Your task to perform on an android device: Open calendar and show me the fourth week of next month Image 0: 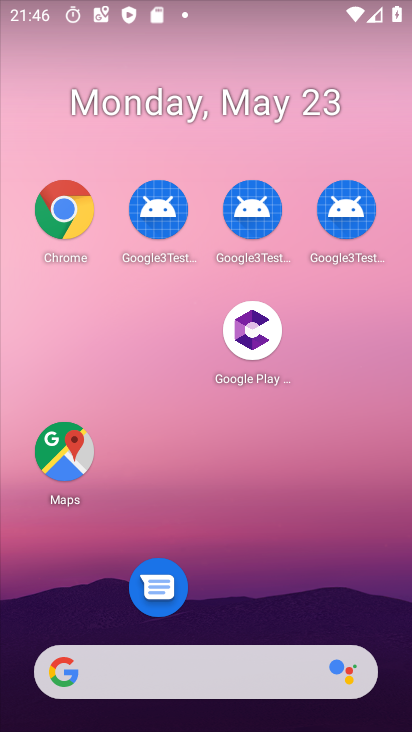
Step 0: drag from (288, 607) to (345, 7)
Your task to perform on an android device: Open calendar and show me the fourth week of next month Image 1: 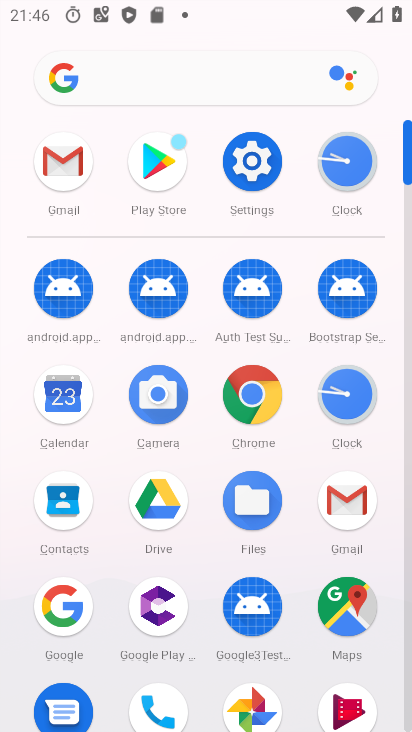
Step 1: click (64, 405)
Your task to perform on an android device: Open calendar and show me the fourth week of next month Image 2: 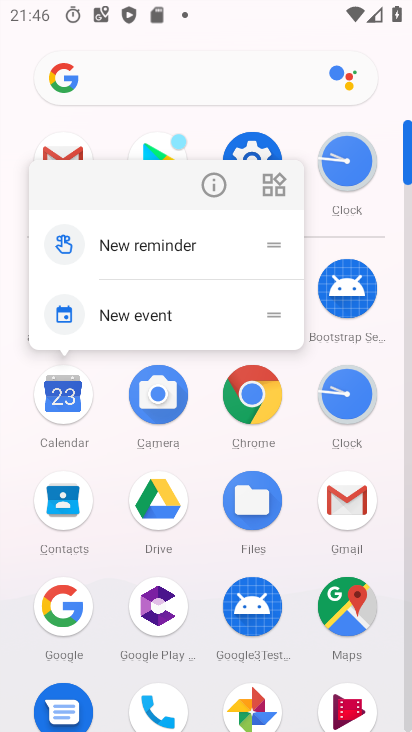
Step 2: click (64, 405)
Your task to perform on an android device: Open calendar and show me the fourth week of next month Image 3: 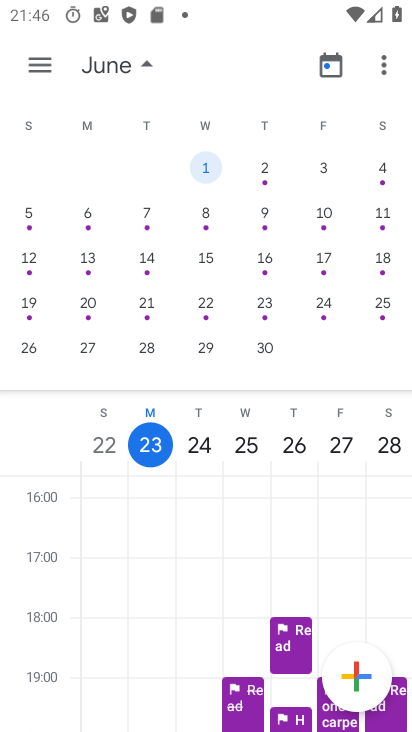
Step 3: click (324, 305)
Your task to perform on an android device: Open calendar and show me the fourth week of next month Image 4: 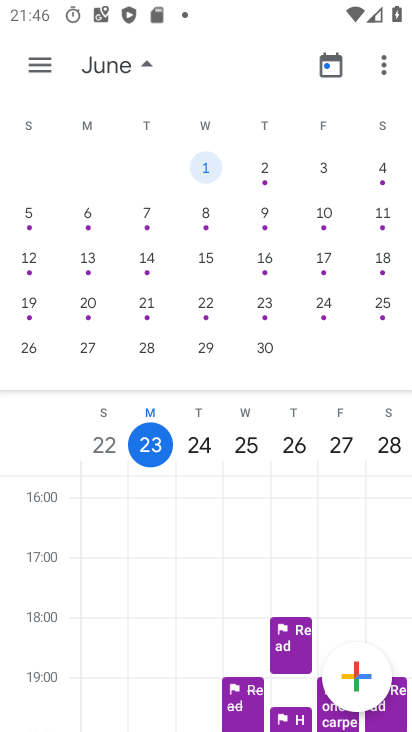
Step 4: click (324, 303)
Your task to perform on an android device: Open calendar and show me the fourth week of next month Image 5: 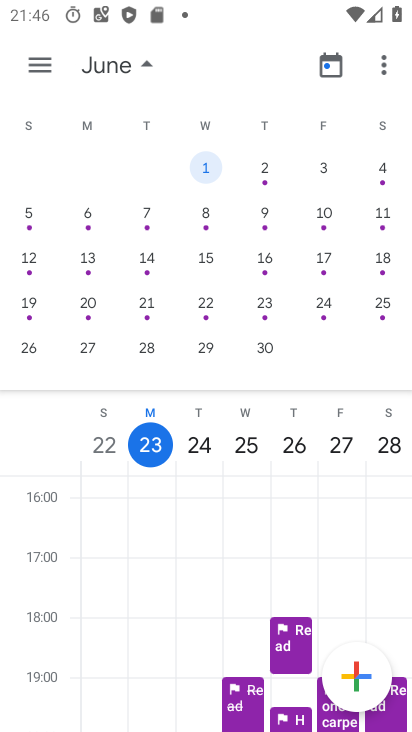
Step 5: click (320, 303)
Your task to perform on an android device: Open calendar and show me the fourth week of next month Image 6: 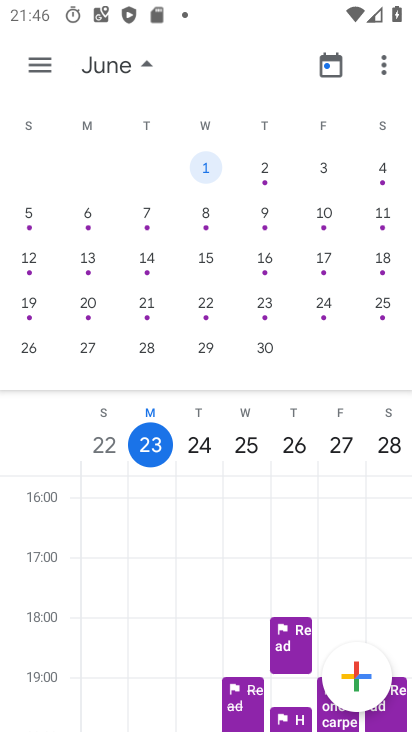
Step 6: task complete